Your task to perform on an android device: View the shopping cart on amazon.com. Image 0: 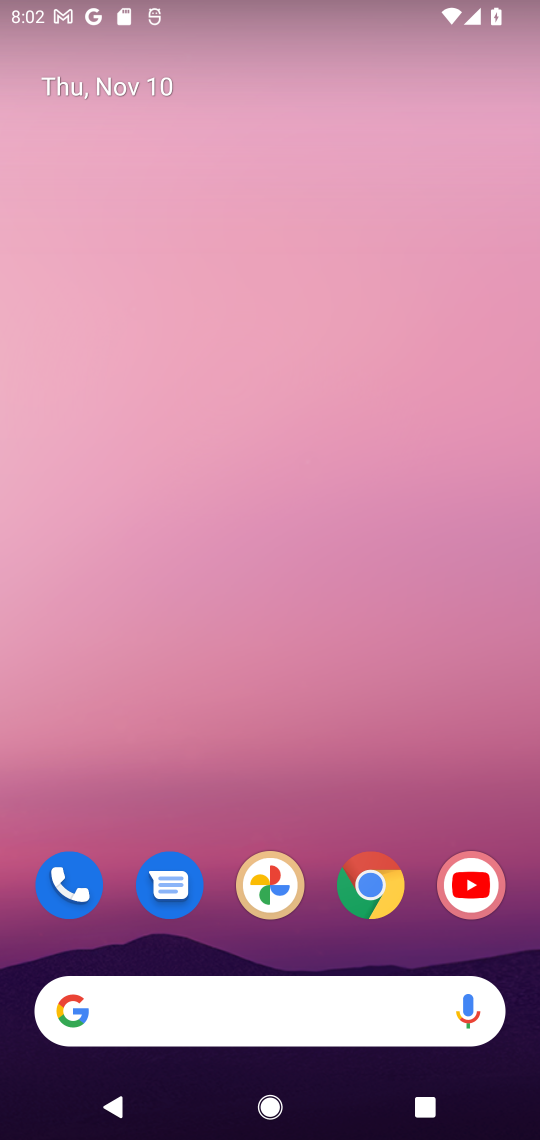
Step 0: click (380, 900)
Your task to perform on an android device: View the shopping cart on amazon.com. Image 1: 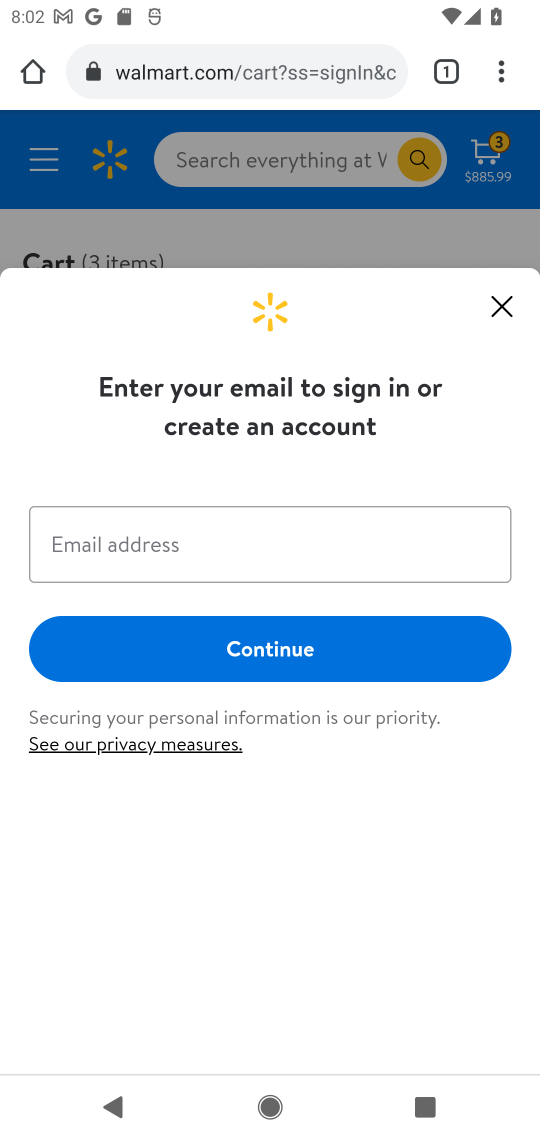
Step 1: click (312, 58)
Your task to perform on an android device: View the shopping cart on amazon.com. Image 2: 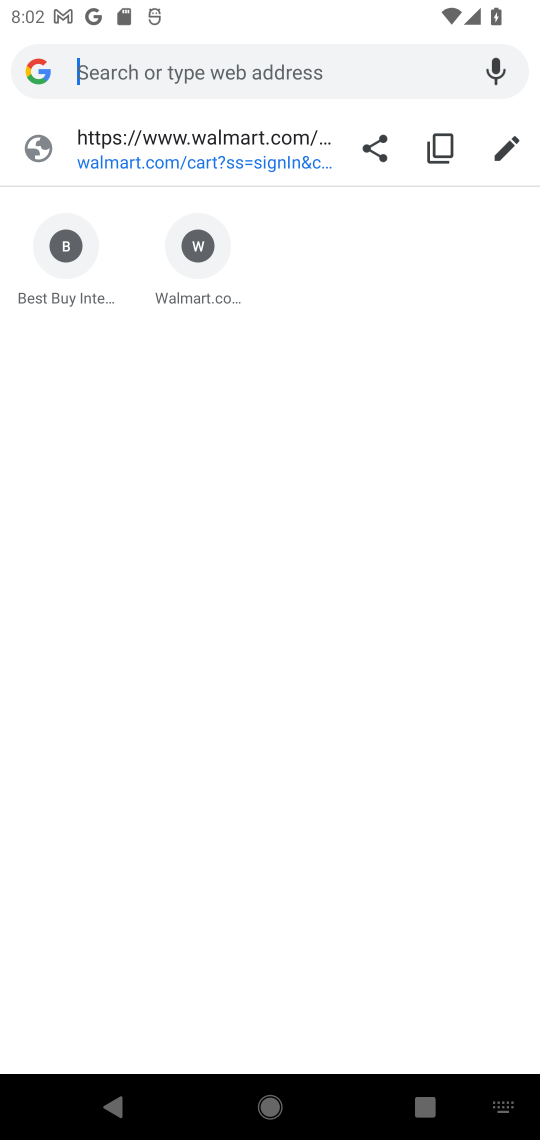
Step 2: type "amazon.com"
Your task to perform on an android device: View the shopping cart on amazon.com. Image 3: 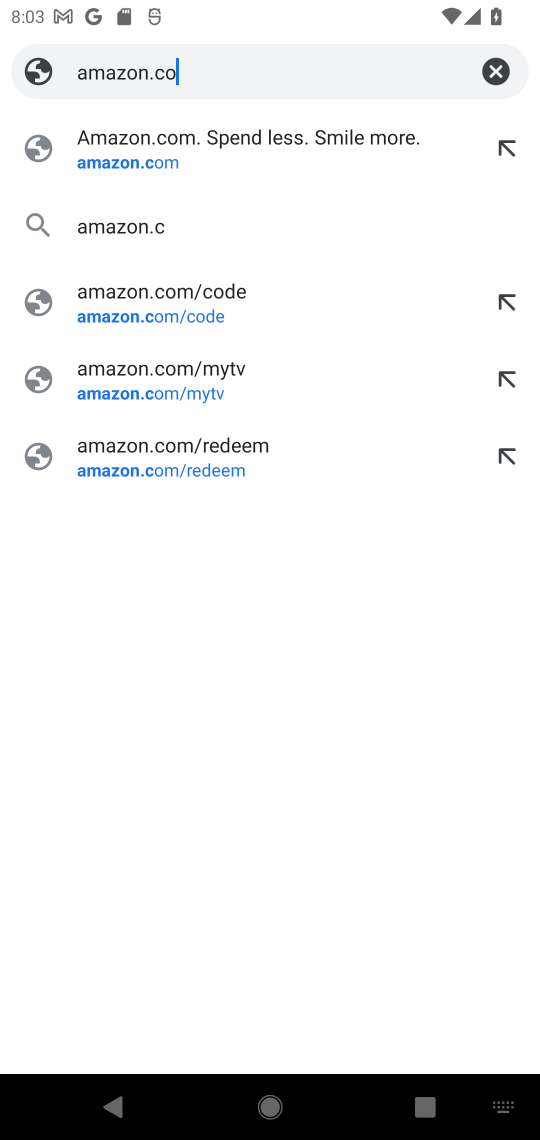
Step 3: press enter
Your task to perform on an android device: View the shopping cart on amazon.com. Image 4: 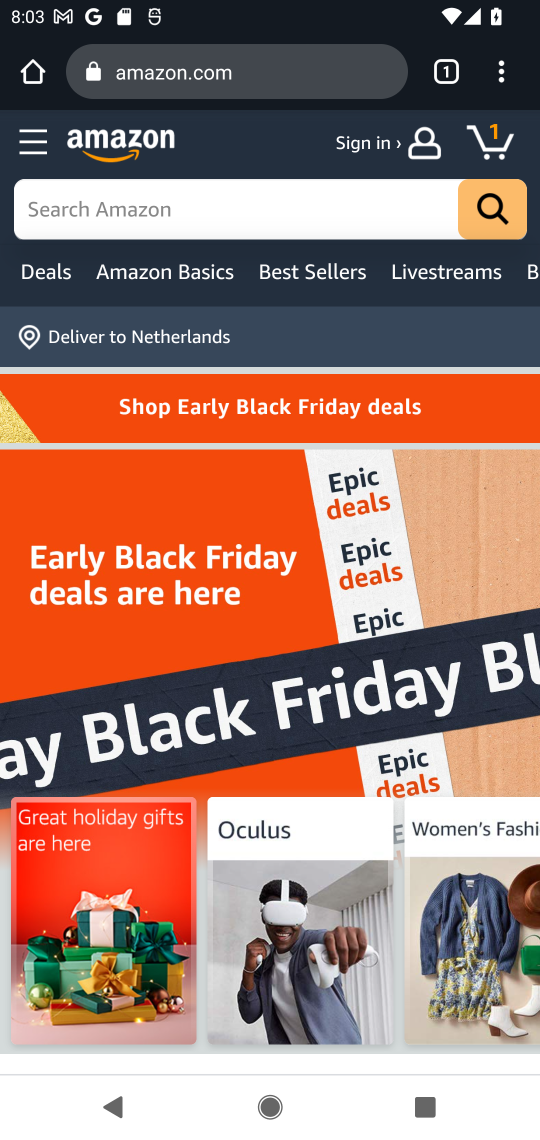
Step 4: click (498, 142)
Your task to perform on an android device: View the shopping cart on amazon.com. Image 5: 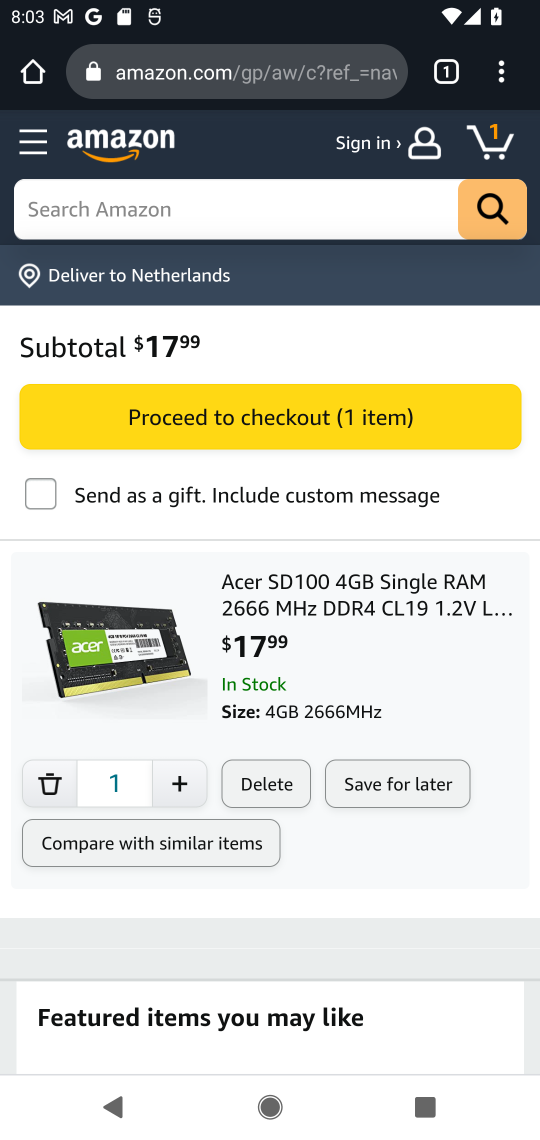
Step 5: task complete